Your task to perform on an android device: turn on sleep mode Image 0: 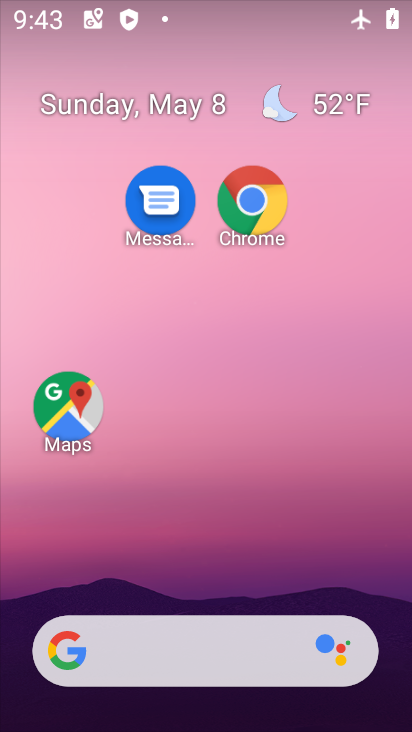
Step 0: drag from (191, 603) to (251, 6)
Your task to perform on an android device: turn on sleep mode Image 1: 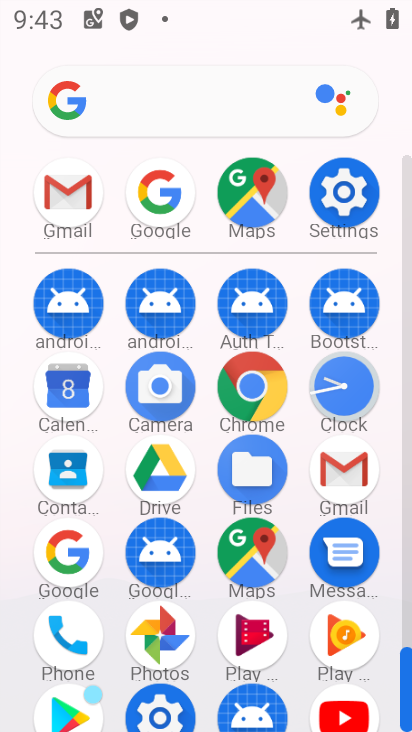
Step 1: click (334, 198)
Your task to perform on an android device: turn on sleep mode Image 2: 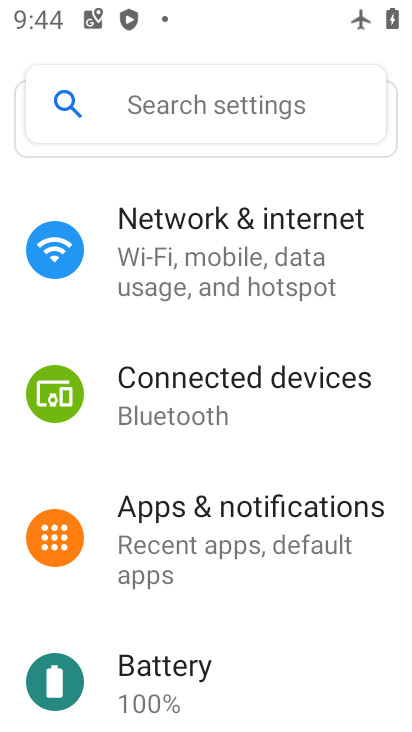
Step 2: drag from (292, 524) to (217, 122)
Your task to perform on an android device: turn on sleep mode Image 3: 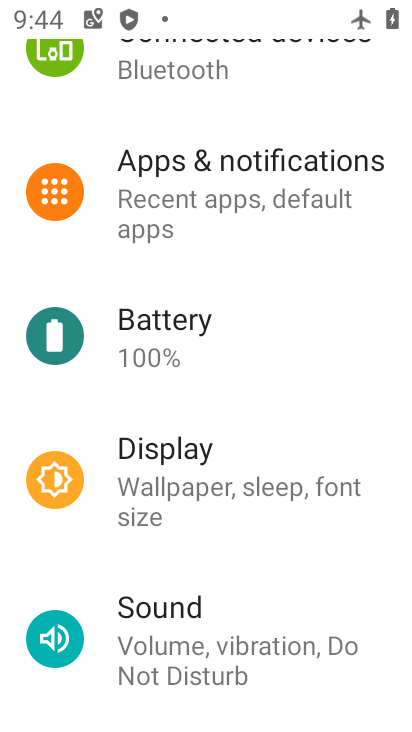
Step 3: click (157, 476)
Your task to perform on an android device: turn on sleep mode Image 4: 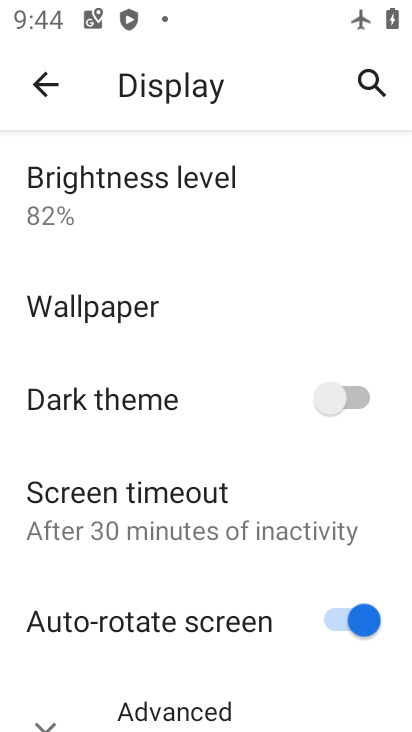
Step 4: drag from (218, 571) to (137, 165)
Your task to perform on an android device: turn on sleep mode Image 5: 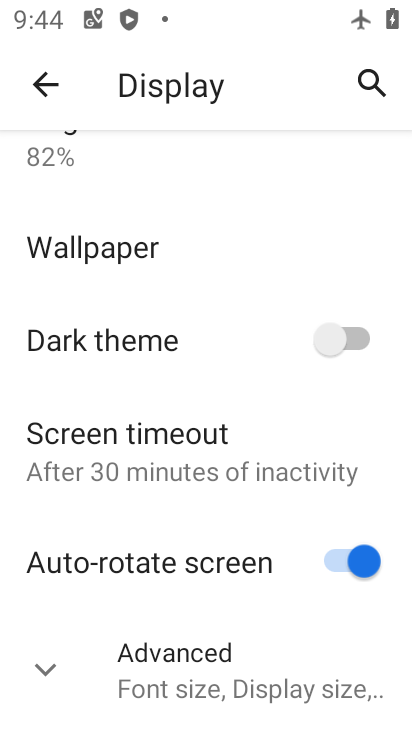
Step 5: click (154, 667)
Your task to perform on an android device: turn on sleep mode Image 6: 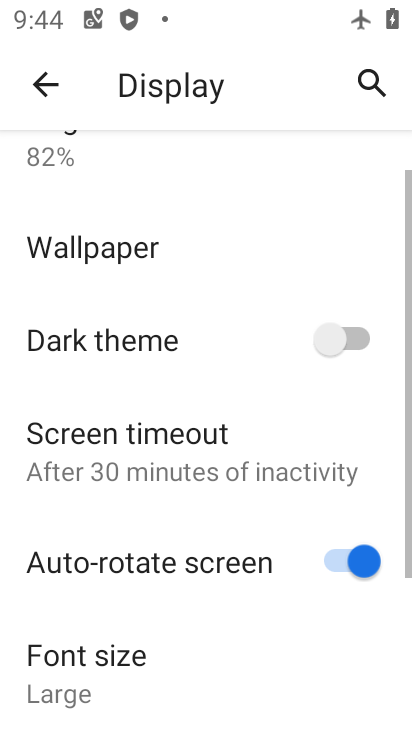
Step 6: task complete